Your task to perform on an android device: When is my next appointment? Image 0: 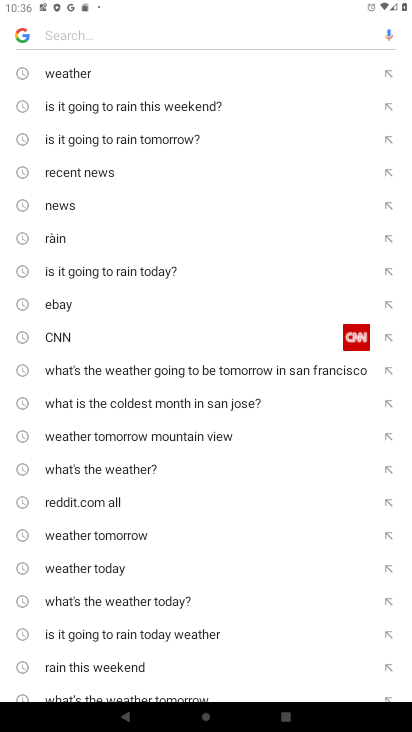
Step 0: press back button
Your task to perform on an android device: When is my next appointment? Image 1: 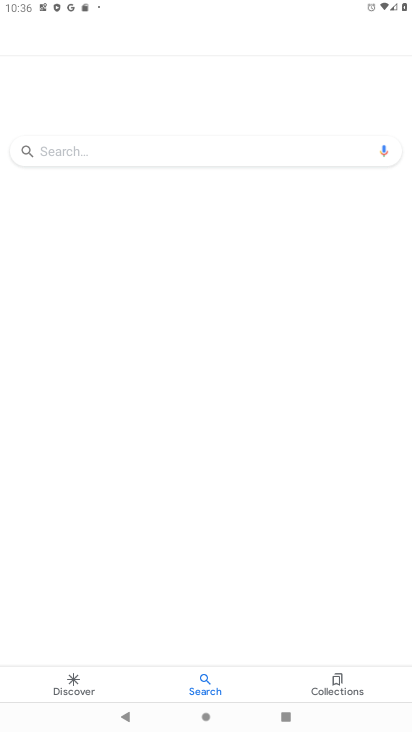
Step 1: press back button
Your task to perform on an android device: When is my next appointment? Image 2: 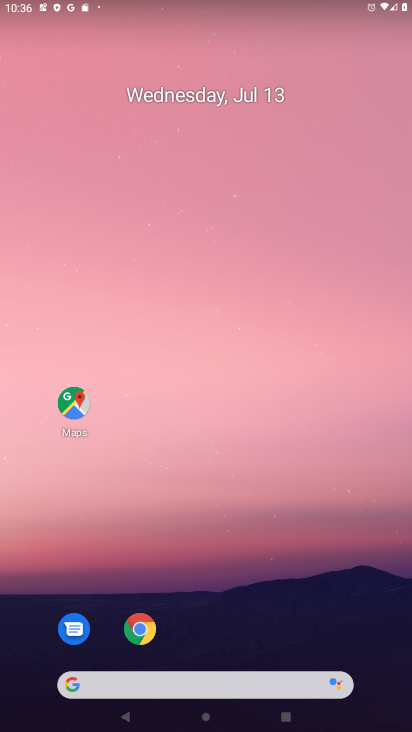
Step 2: drag from (261, 612) to (296, 357)
Your task to perform on an android device: When is my next appointment? Image 3: 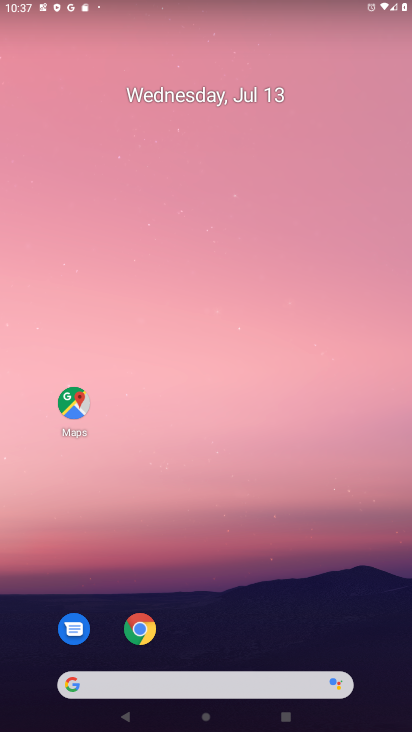
Step 3: drag from (227, 622) to (227, 68)
Your task to perform on an android device: When is my next appointment? Image 4: 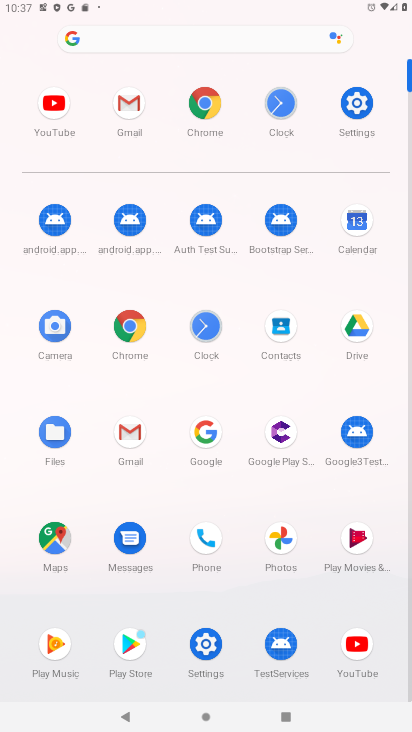
Step 4: click (360, 252)
Your task to perform on an android device: When is my next appointment? Image 5: 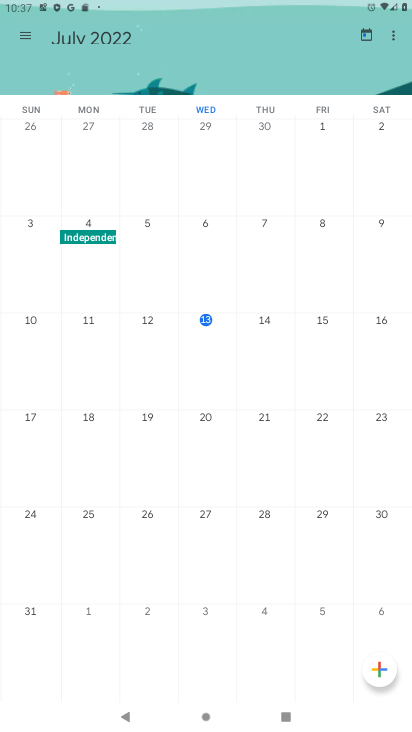
Step 5: task complete